Your task to perform on an android device: Search for seafood restaurants on Google Maps Image 0: 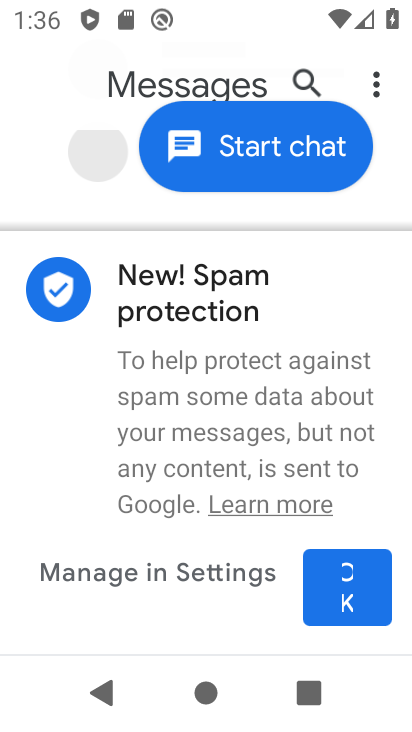
Step 0: task complete